Your task to perform on an android device: uninstall "DoorDash - Dasher" Image 0: 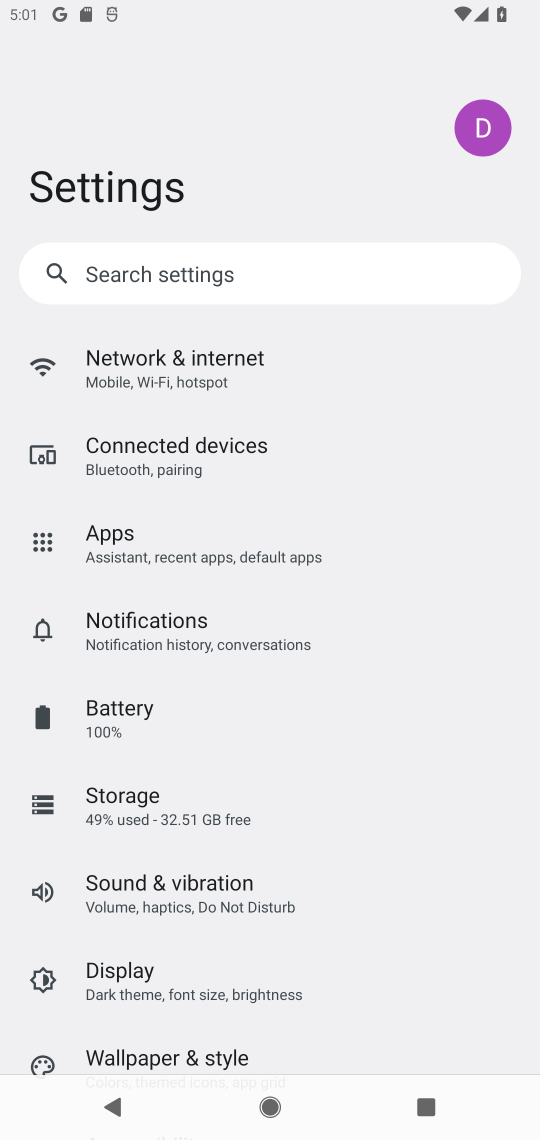
Step 0: press home button
Your task to perform on an android device: uninstall "DoorDash - Dasher" Image 1: 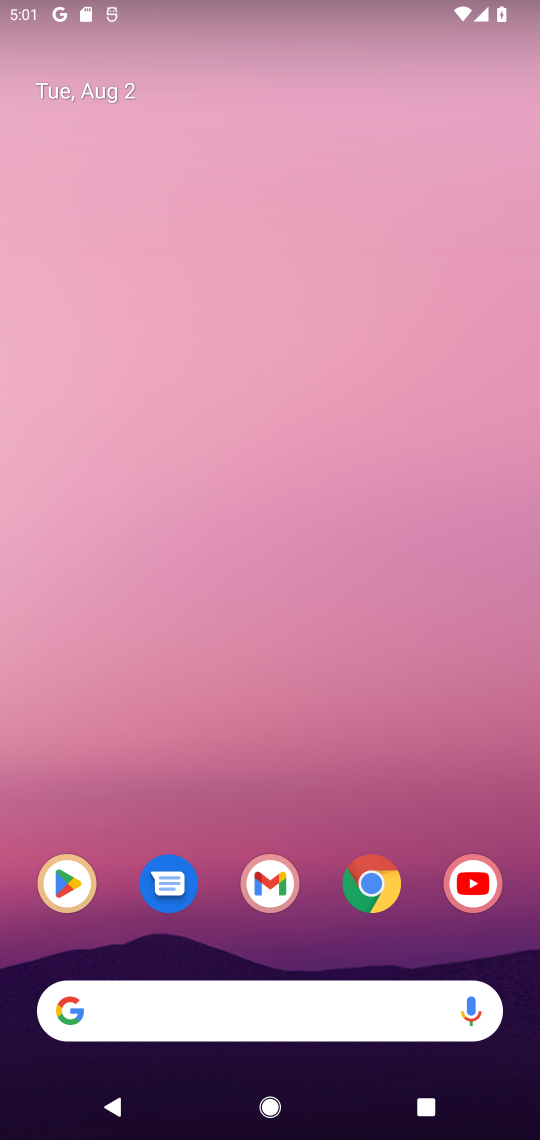
Step 1: drag from (264, 978) to (182, 51)
Your task to perform on an android device: uninstall "DoorDash - Dasher" Image 2: 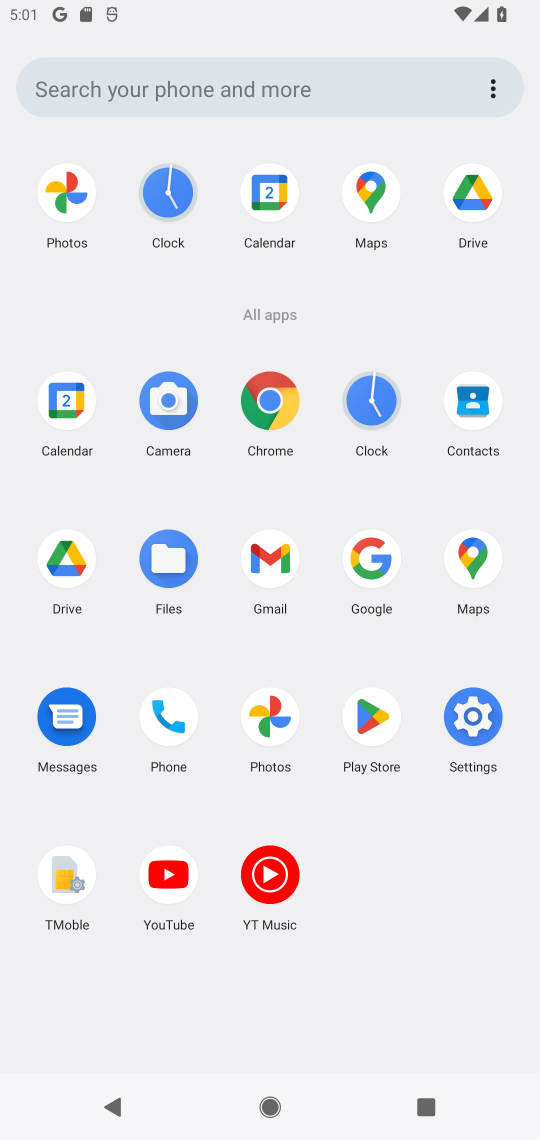
Step 2: click (385, 722)
Your task to perform on an android device: uninstall "DoorDash - Dasher" Image 3: 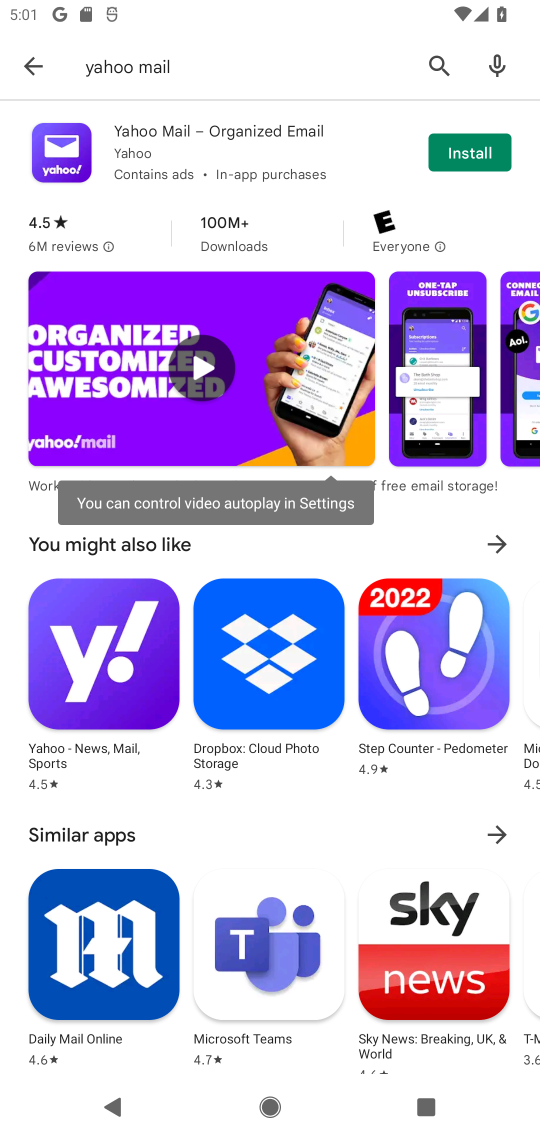
Step 3: click (26, 62)
Your task to perform on an android device: uninstall "DoorDash - Dasher" Image 4: 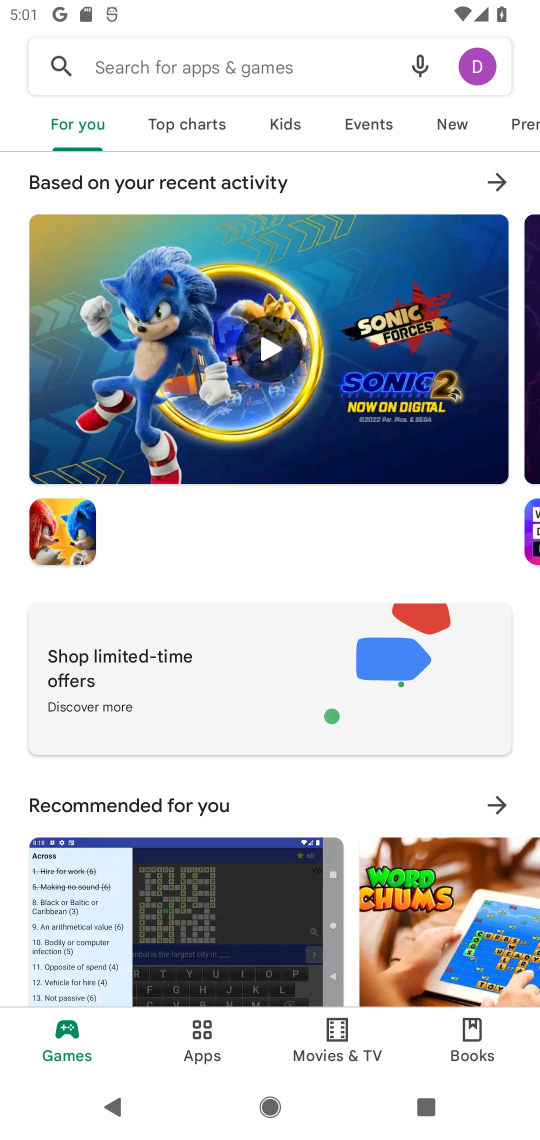
Step 4: click (157, 69)
Your task to perform on an android device: uninstall "DoorDash - Dasher" Image 5: 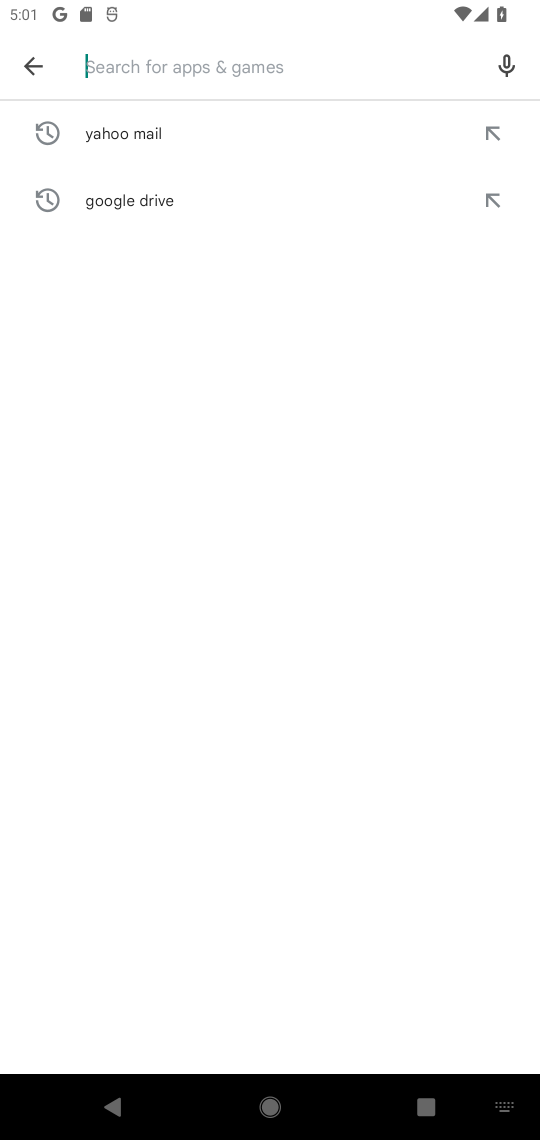
Step 5: type "DoorDash - Dasher"
Your task to perform on an android device: uninstall "DoorDash - Dasher" Image 6: 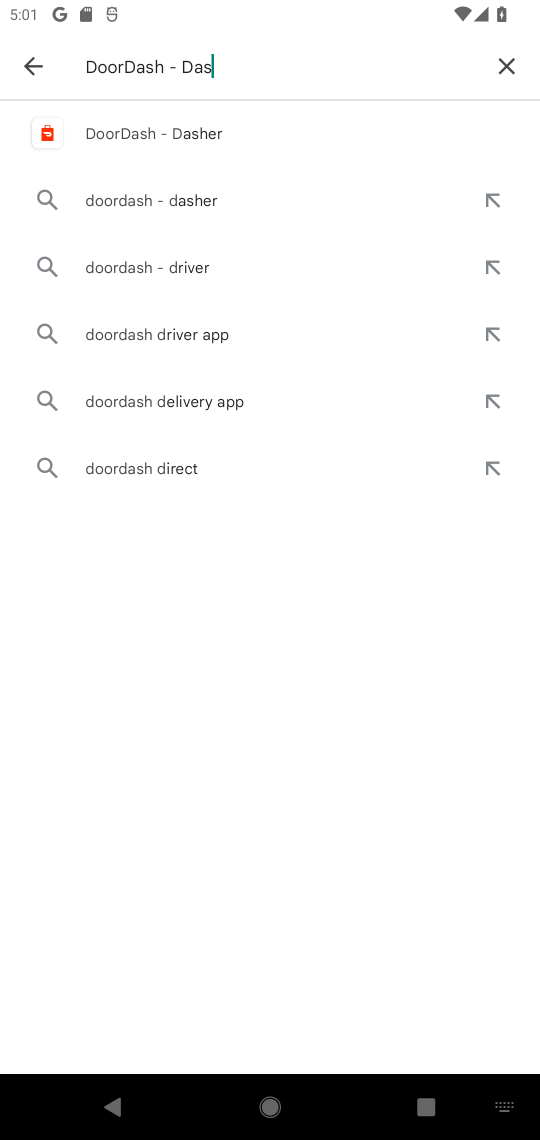
Step 6: type ""
Your task to perform on an android device: uninstall "DoorDash - Dasher" Image 7: 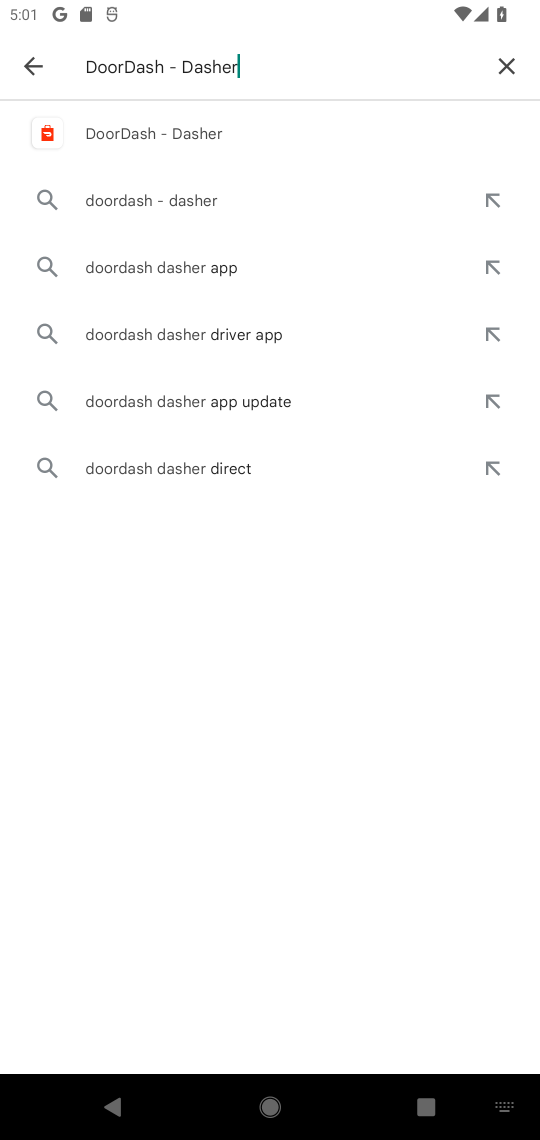
Step 7: click (111, 118)
Your task to perform on an android device: uninstall "DoorDash - Dasher" Image 8: 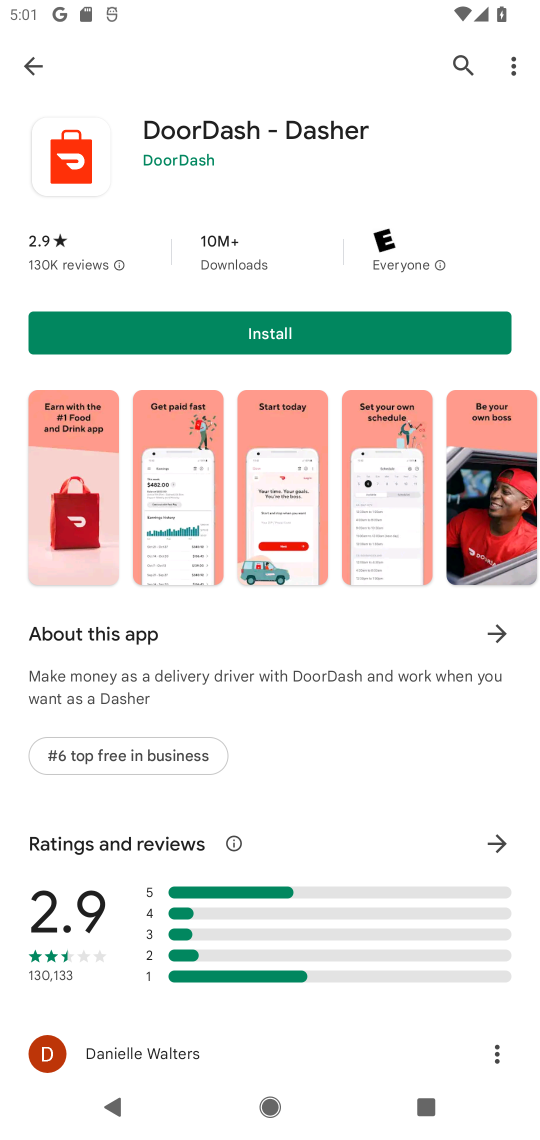
Step 8: task complete